Your task to perform on an android device: toggle airplane mode Image 0: 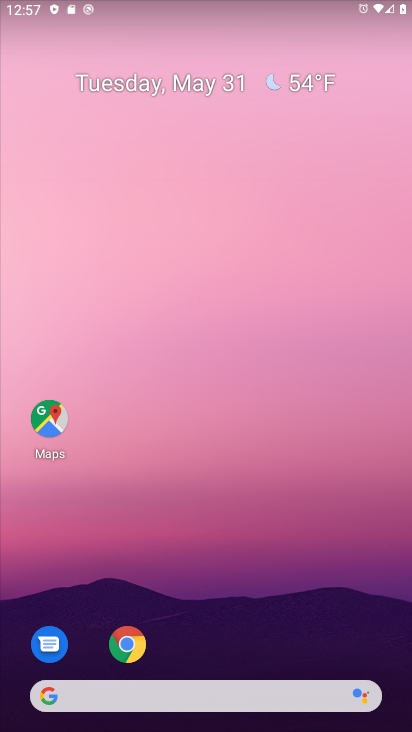
Step 0: press home button
Your task to perform on an android device: toggle airplane mode Image 1: 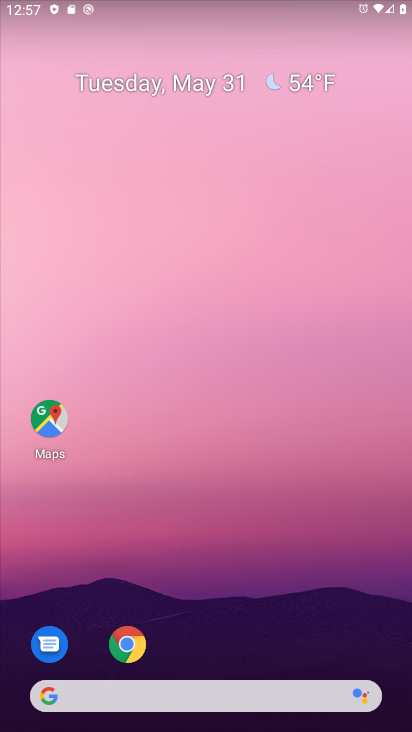
Step 1: drag from (208, 1) to (244, 328)
Your task to perform on an android device: toggle airplane mode Image 2: 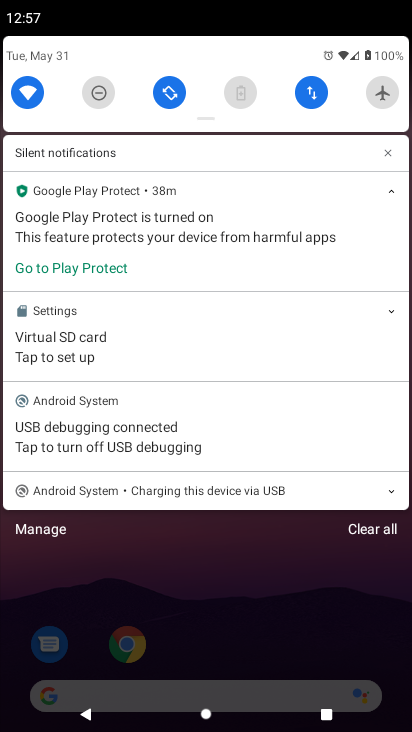
Step 2: click (384, 92)
Your task to perform on an android device: toggle airplane mode Image 3: 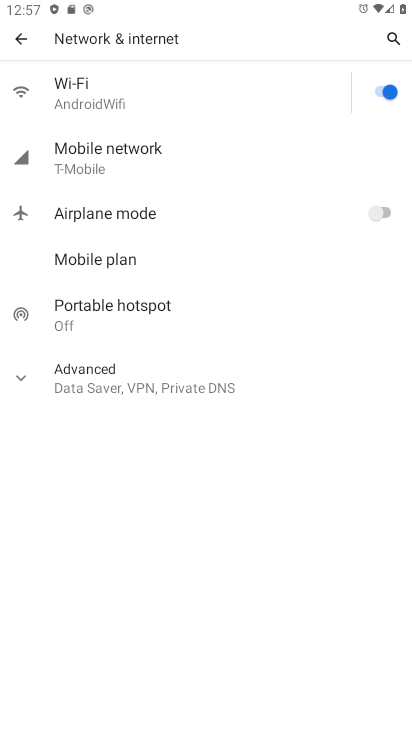
Step 3: click (378, 211)
Your task to perform on an android device: toggle airplane mode Image 4: 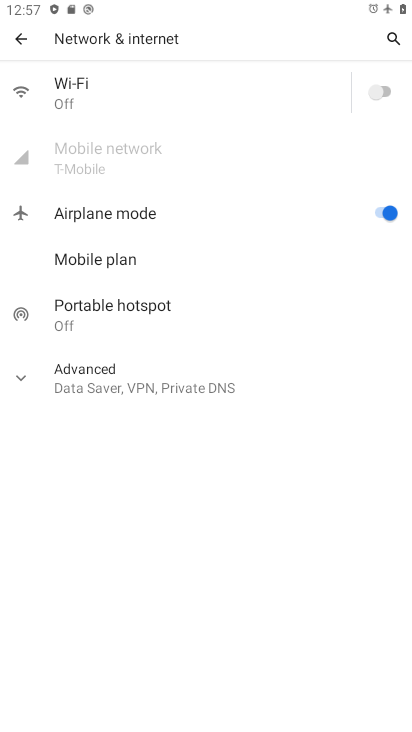
Step 4: task complete